Your task to perform on an android device: Show me recent news Image 0: 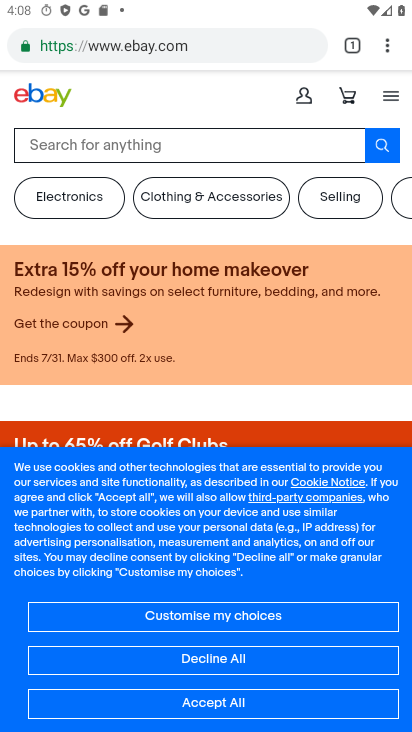
Step 0: press home button
Your task to perform on an android device: Show me recent news Image 1: 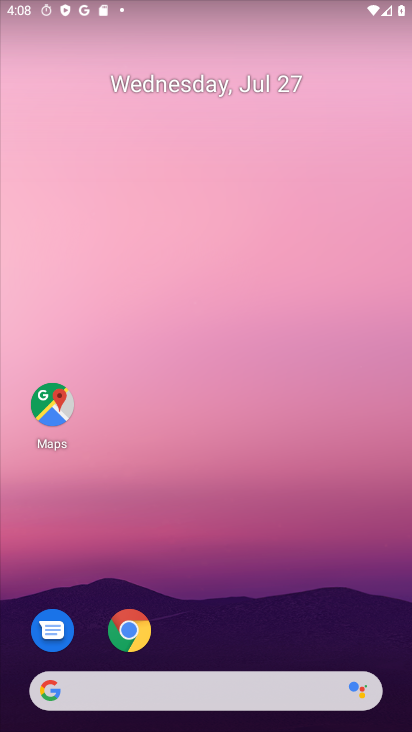
Step 1: click (188, 677)
Your task to perform on an android device: Show me recent news Image 2: 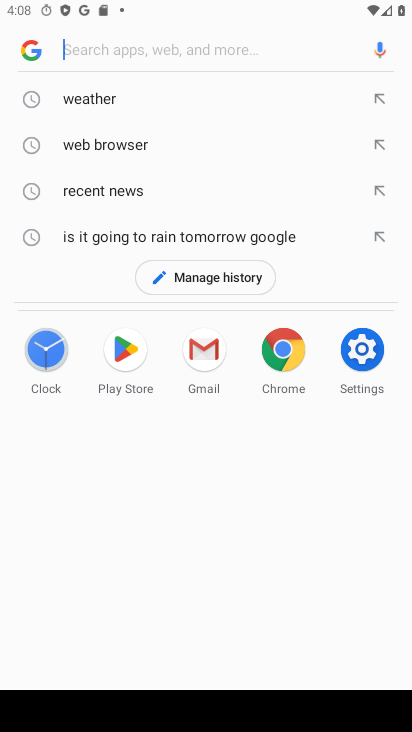
Step 2: click (137, 189)
Your task to perform on an android device: Show me recent news Image 3: 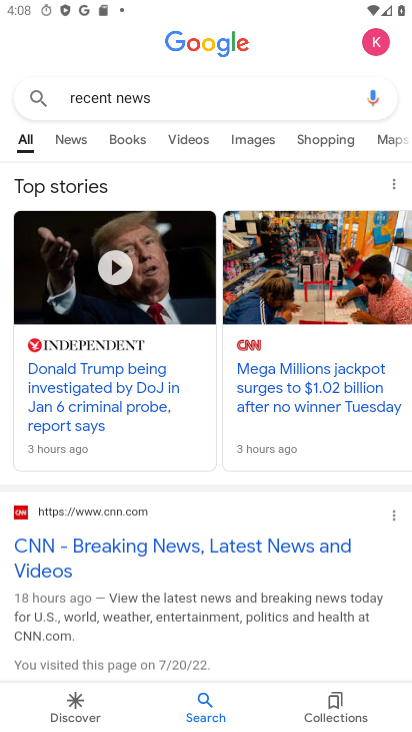
Step 3: task complete